Your task to perform on an android device: Clear the cart on walmart.com. Add "usb-a to usb-b" to the cart on walmart.com, then select checkout. Image 0: 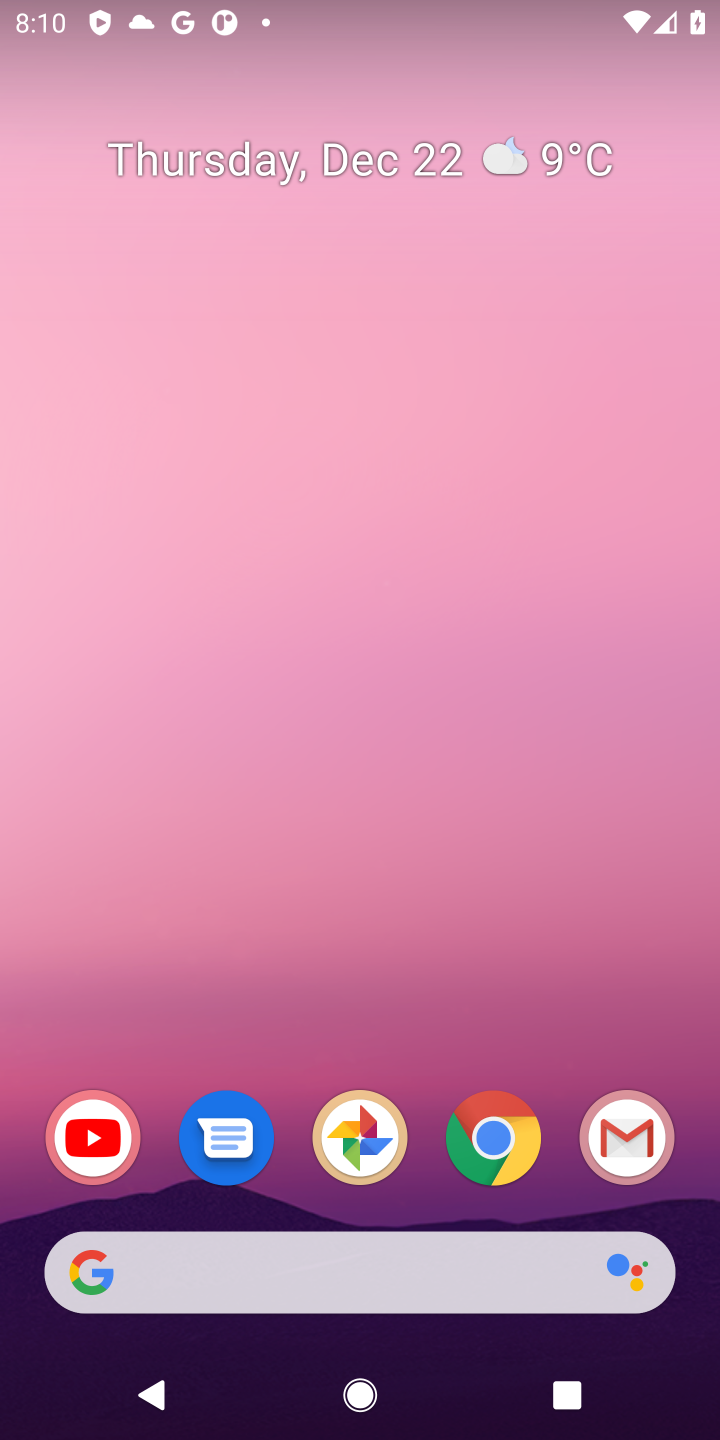
Step 0: click (508, 1150)
Your task to perform on an android device: Clear the cart on walmart.com. Add "usb-a to usb-b" to the cart on walmart.com, then select checkout. Image 1: 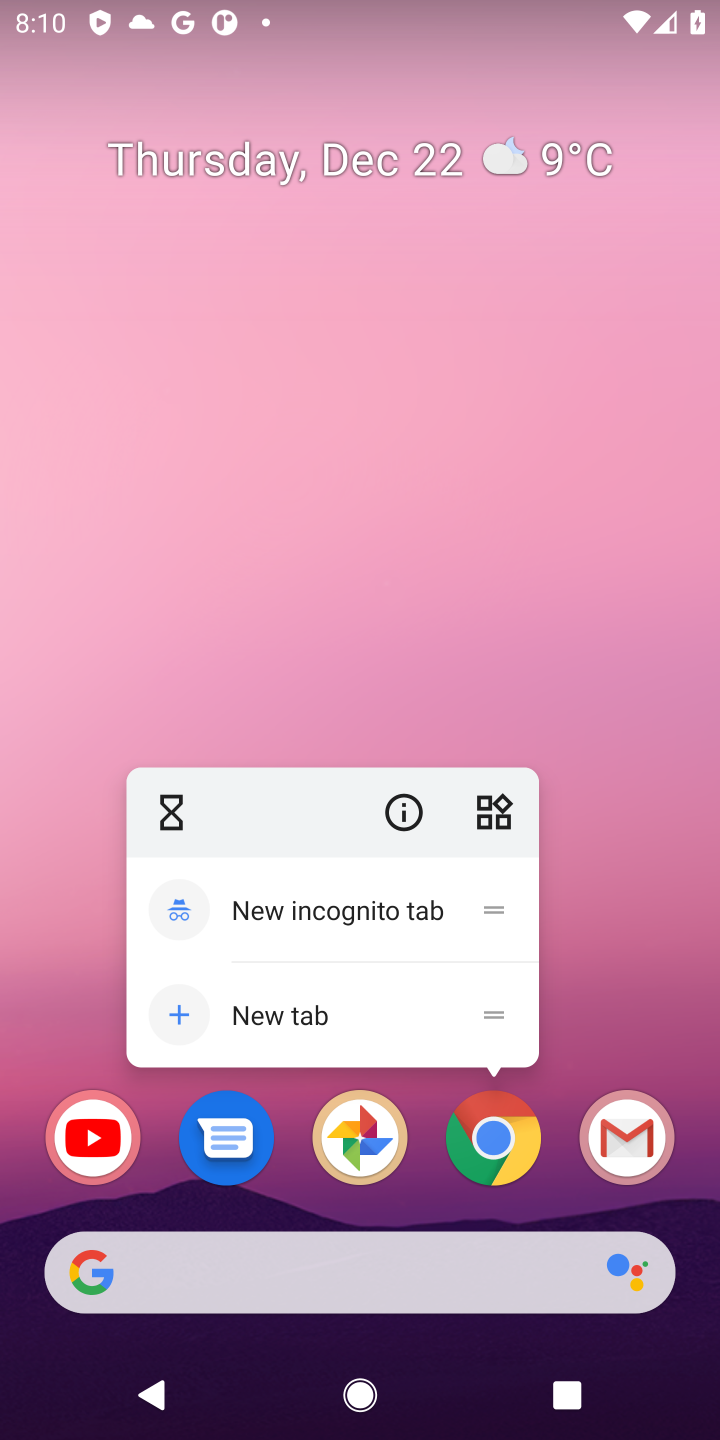
Step 1: click (489, 1159)
Your task to perform on an android device: Clear the cart on walmart.com. Add "usb-a to usb-b" to the cart on walmart.com, then select checkout. Image 2: 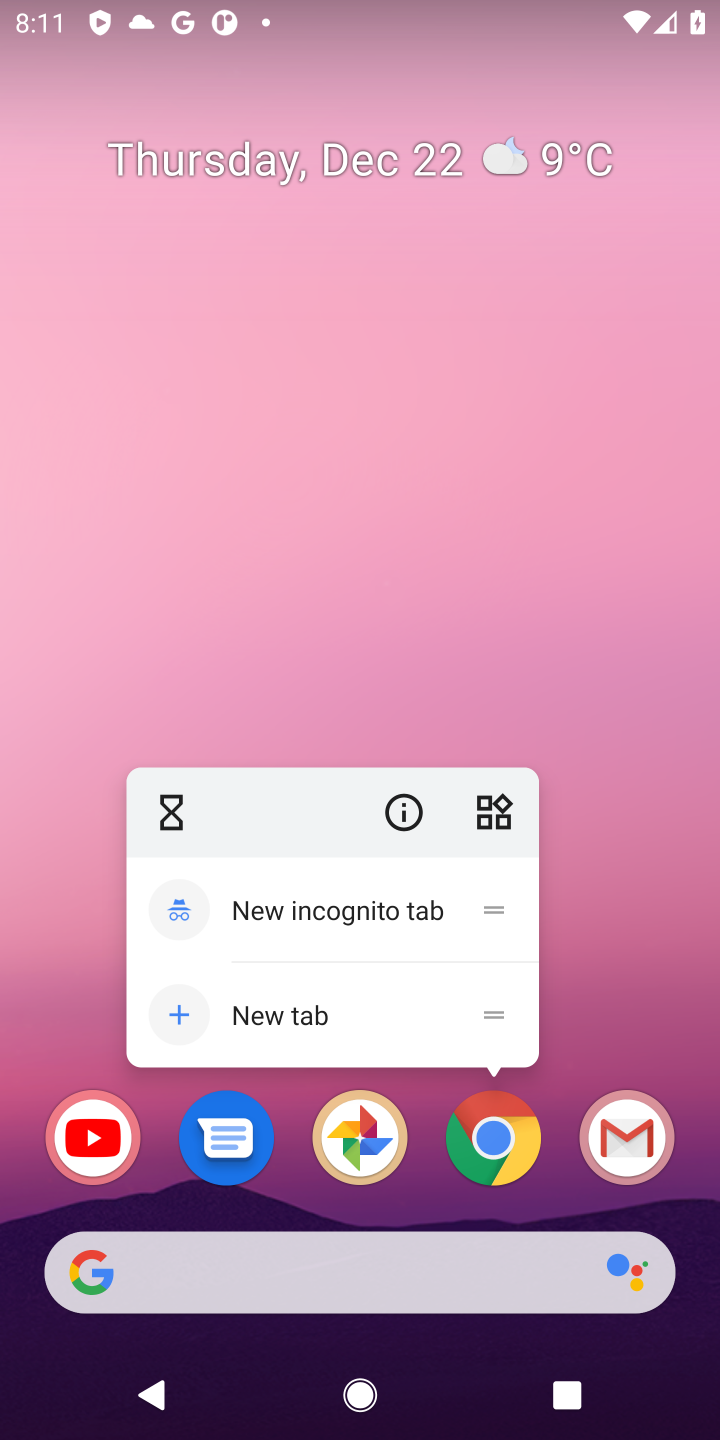
Step 2: click (489, 1159)
Your task to perform on an android device: Clear the cart on walmart.com. Add "usb-a to usb-b" to the cart on walmart.com, then select checkout. Image 3: 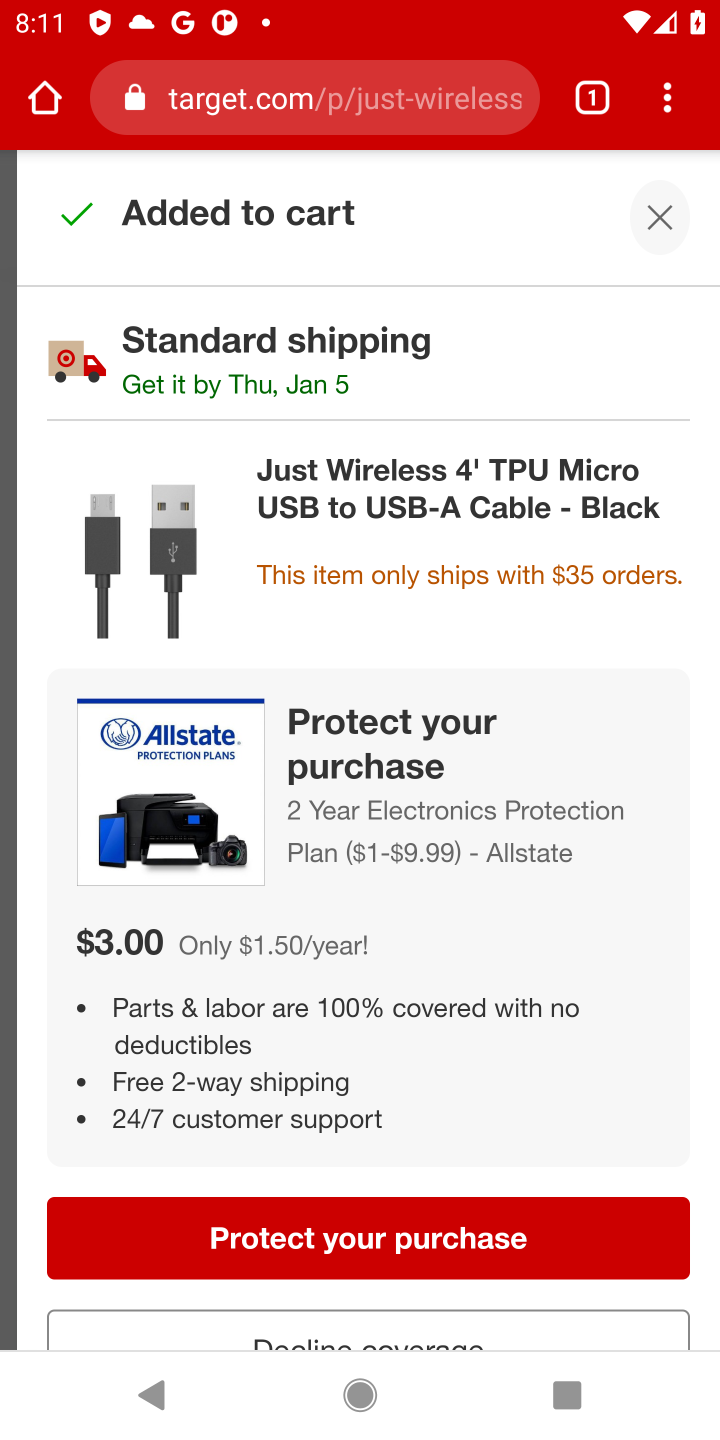
Step 3: click (353, 99)
Your task to perform on an android device: Clear the cart on walmart.com. Add "usb-a to usb-b" to the cart on walmart.com, then select checkout. Image 4: 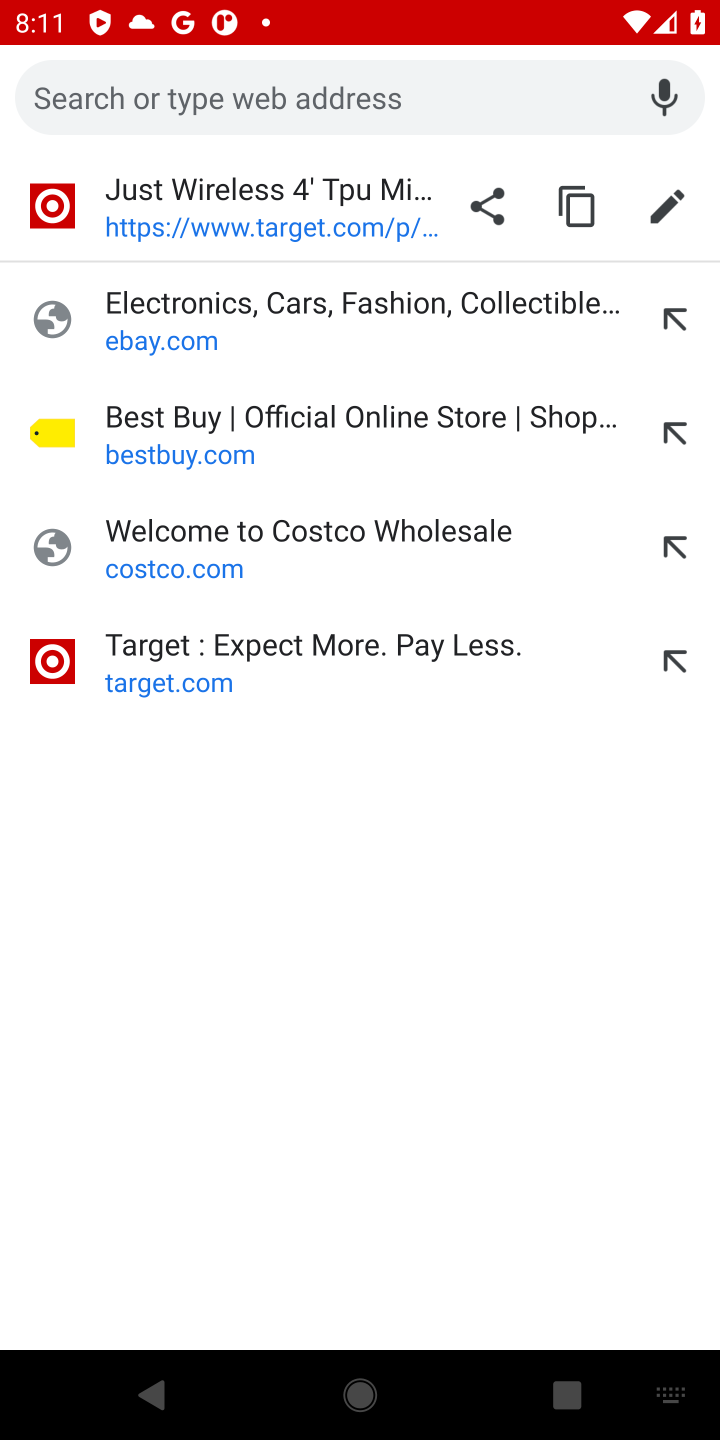
Step 4: type "walmart.com"
Your task to perform on an android device: Clear the cart on walmart.com. Add "usb-a to usb-b" to the cart on walmart.com, then select checkout. Image 5: 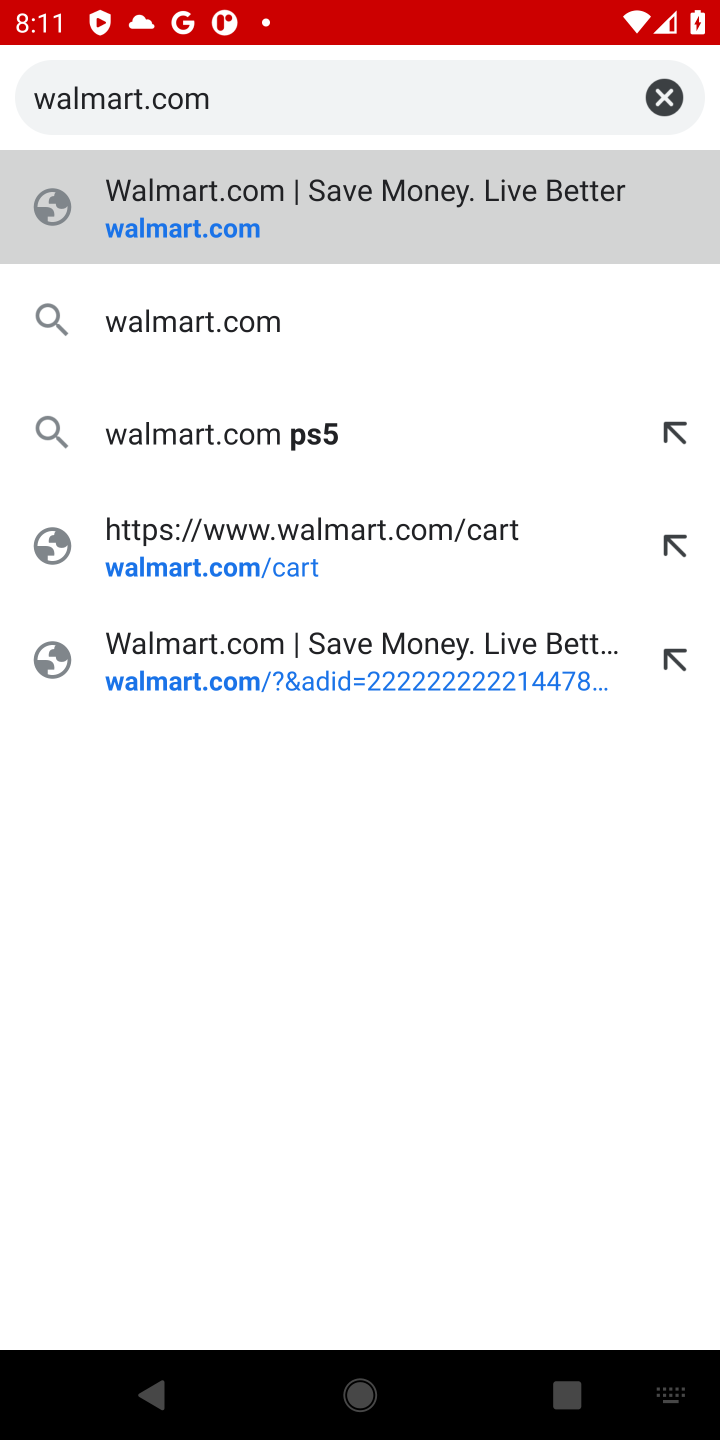
Step 5: press enter
Your task to perform on an android device: Clear the cart on walmart.com. Add "usb-a to usb-b" to the cart on walmart.com, then select checkout. Image 6: 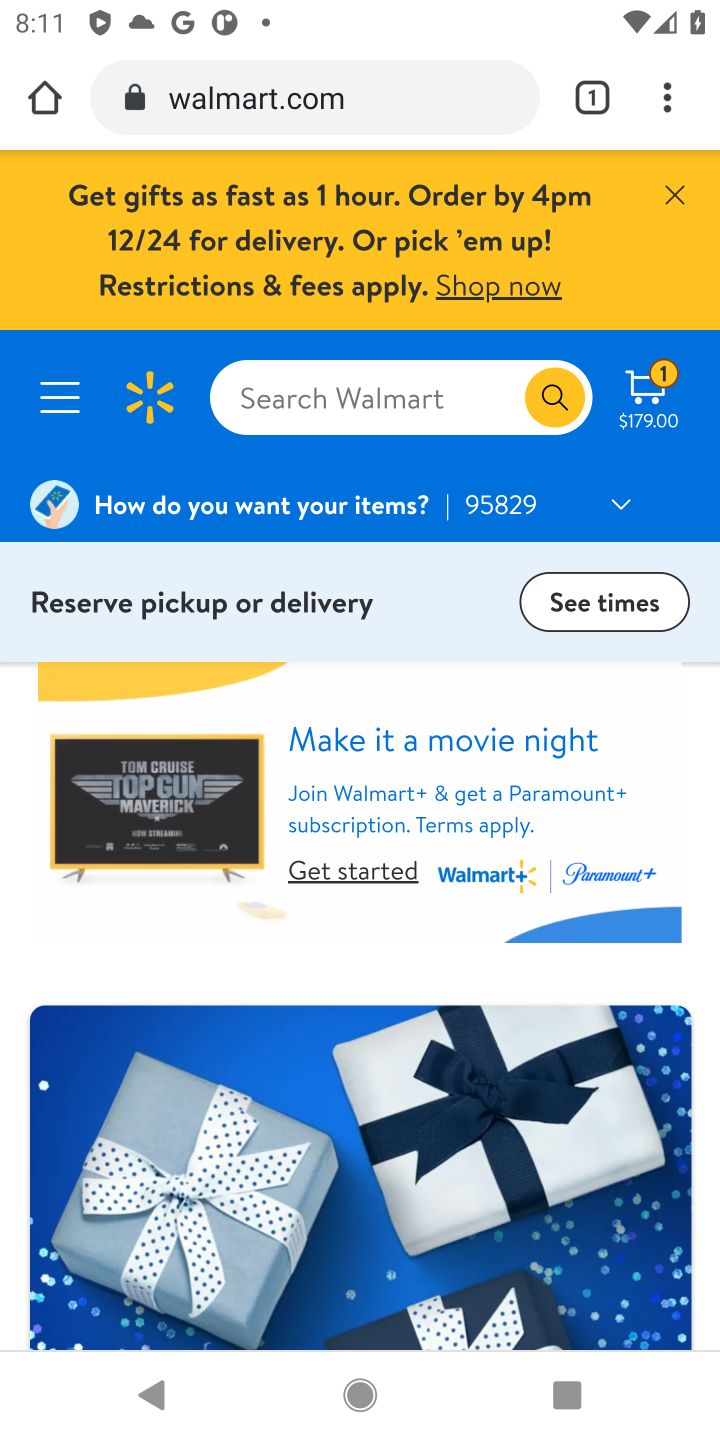
Step 6: click (642, 401)
Your task to perform on an android device: Clear the cart on walmart.com. Add "usb-a to usb-b" to the cart on walmart.com, then select checkout. Image 7: 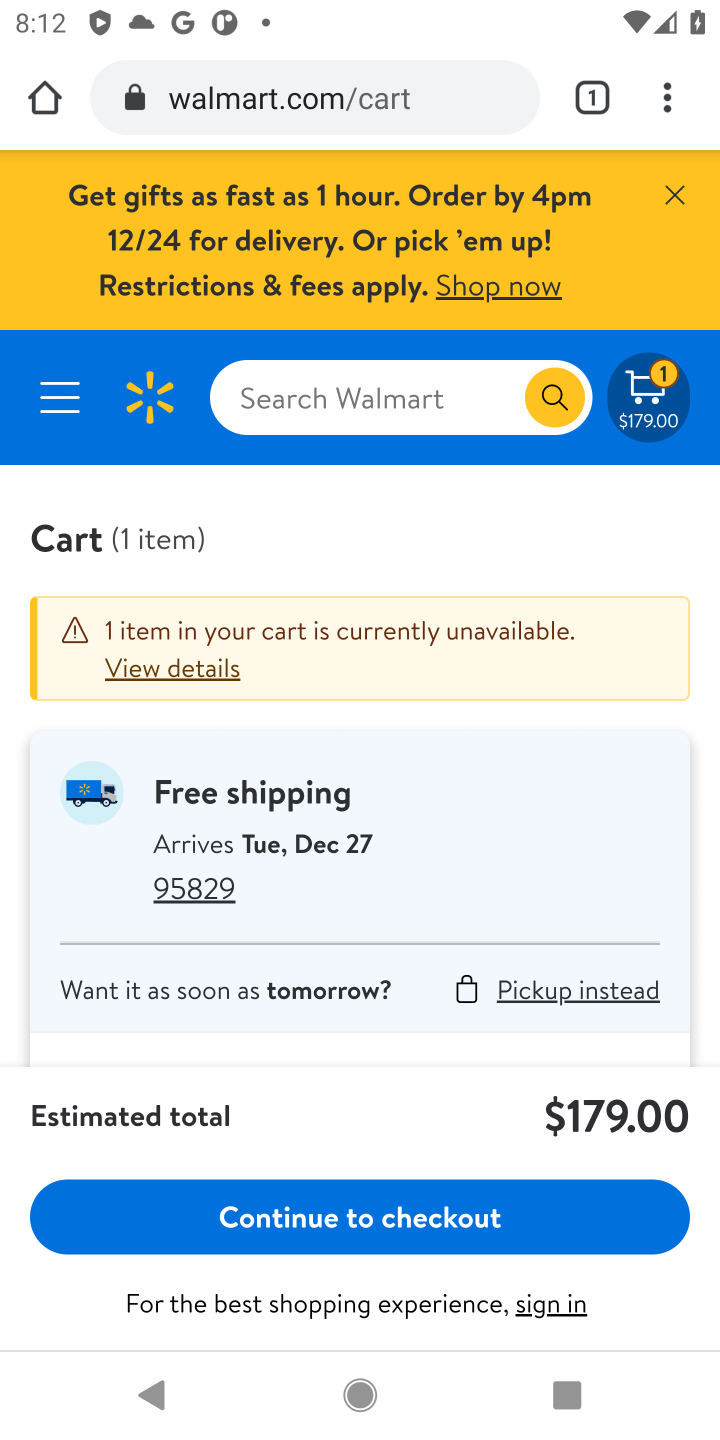
Step 7: drag from (396, 1040) to (390, 474)
Your task to perform on an android device: Clear the cart on walmart.com. Add "usb-a to usb-b" to the cart on walmart.com, then select checkout. Image 8: 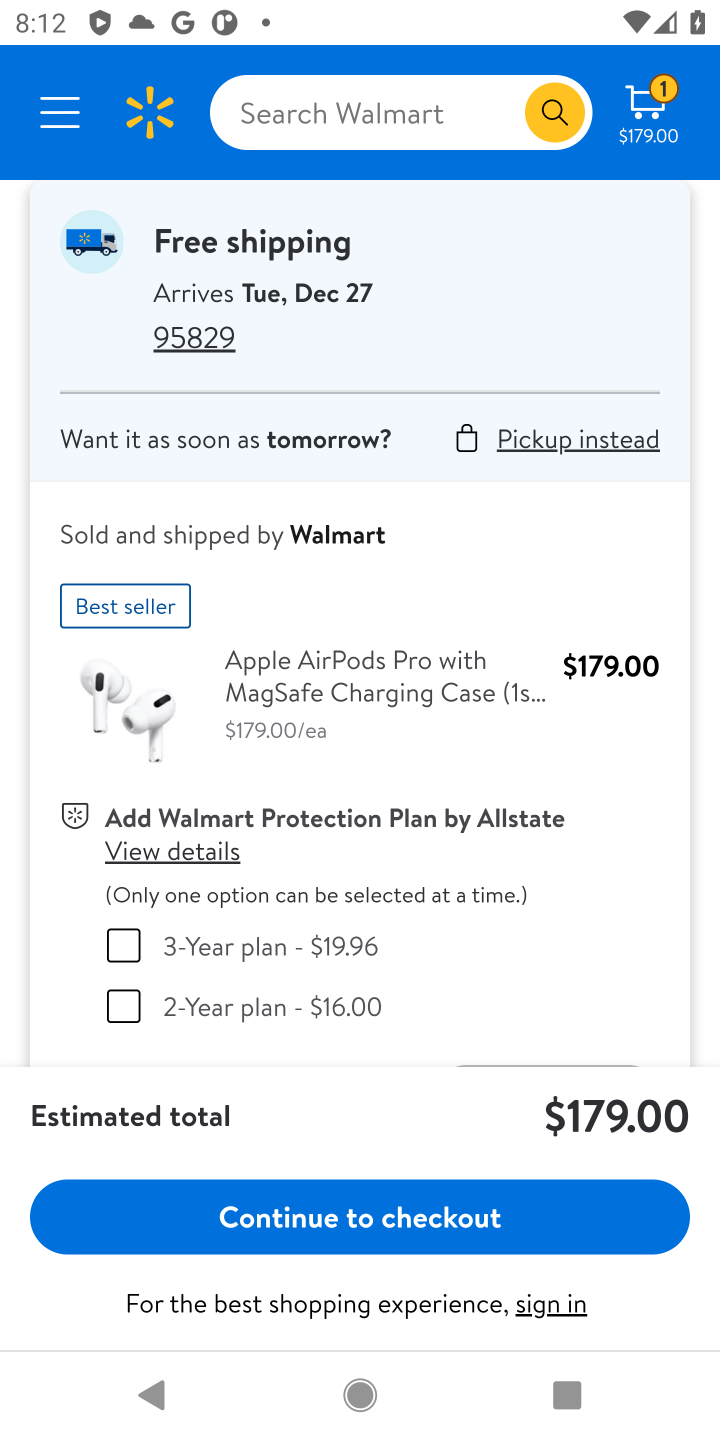
Step 8: drag from (487, 831) to (507, 273)
Your task to perform on an android device: Clear the cart on walmart.com. Add "usb-a to usb-b" to the cart on walmart.com, then select checkout. Image 9: 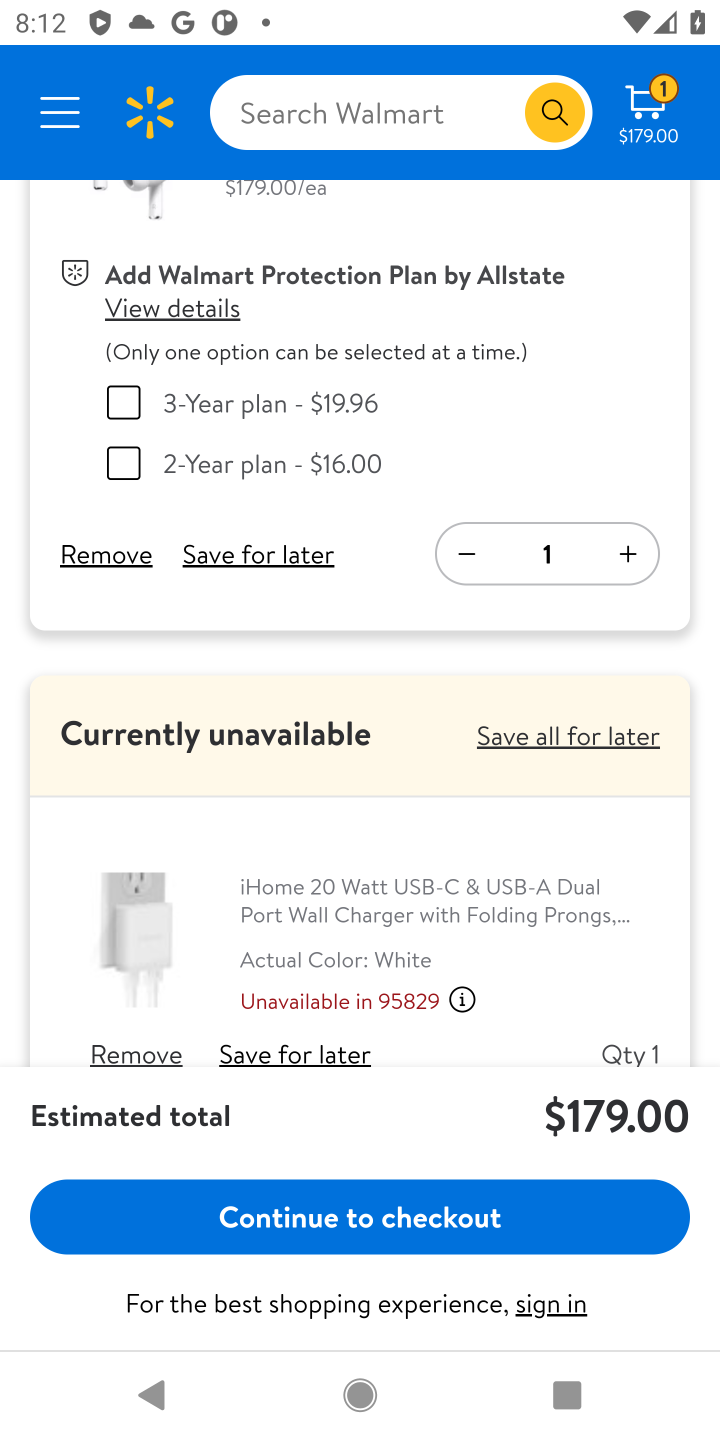
Step 9: click (122, 557)
Your task to perform on an android device: Clear the cart on walmart.com. Add "usb-a to usb-b" to the cart on walmart.com, then select checkout. Image 10: 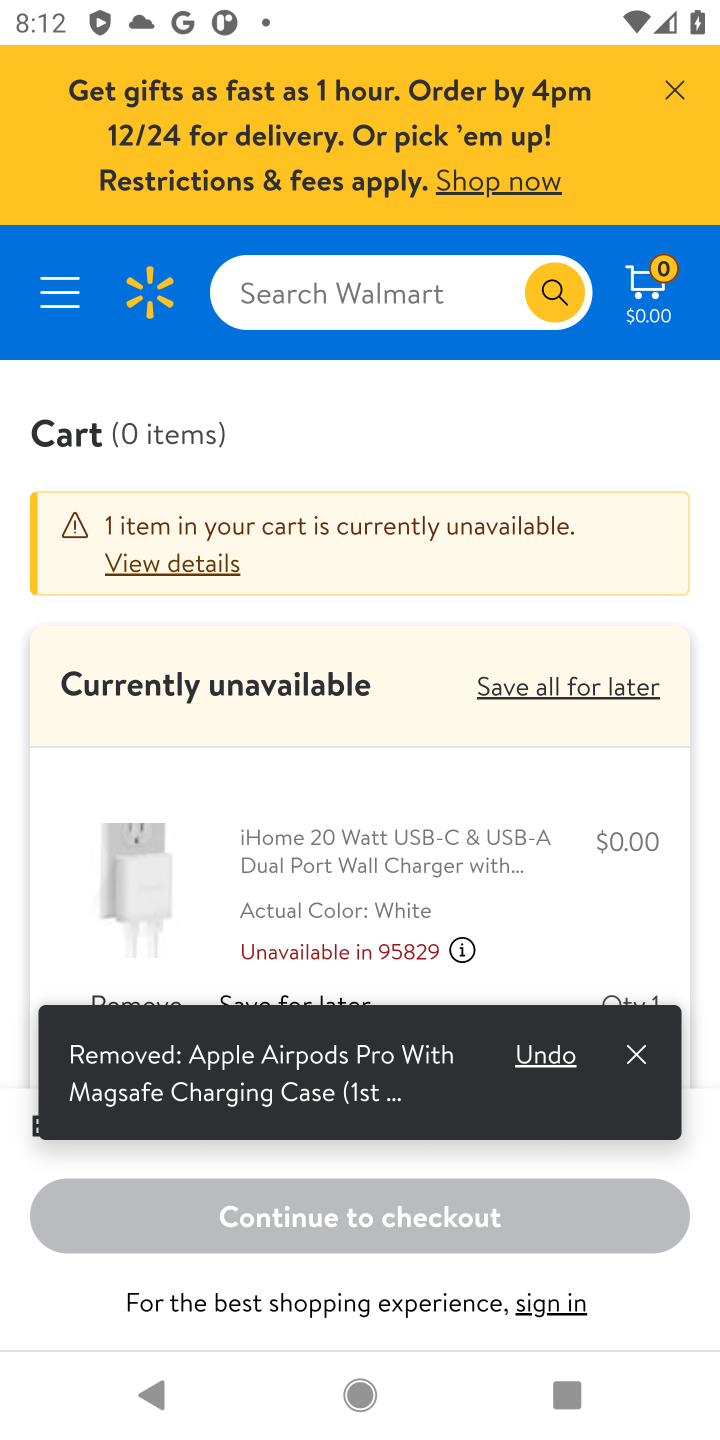
Step 10: drag from (238, 802) to (281, 453)
Your task to perform on an android device: Clear the cart on walmart.com. Add "usb-a to usb-b" to the cart on walmart.com, then select checkout. Image 11: 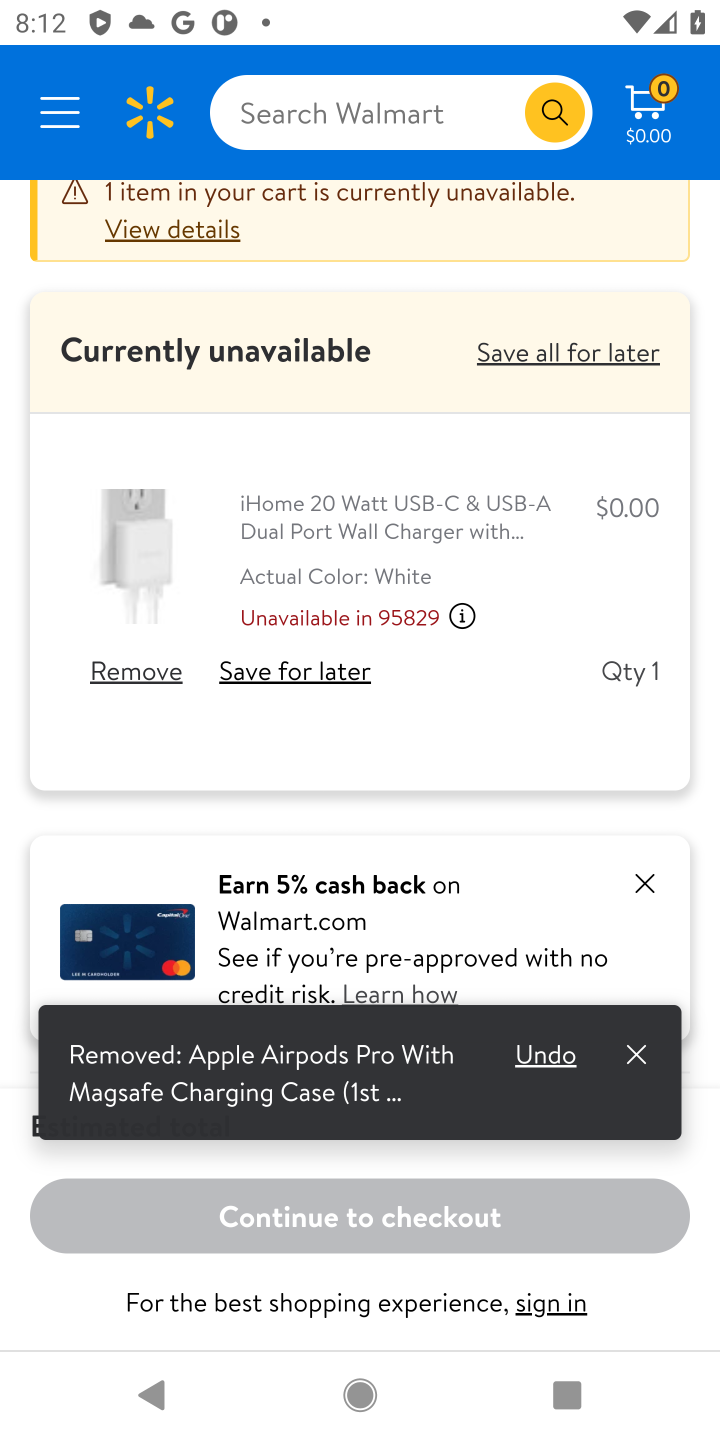
Step 11: click (156, 676)
Your task to perform on an android device: Clear the cart on walmart.com. Add "usb-a to usb-b" to the cart on walmart.com, then select checkout. Image 12: 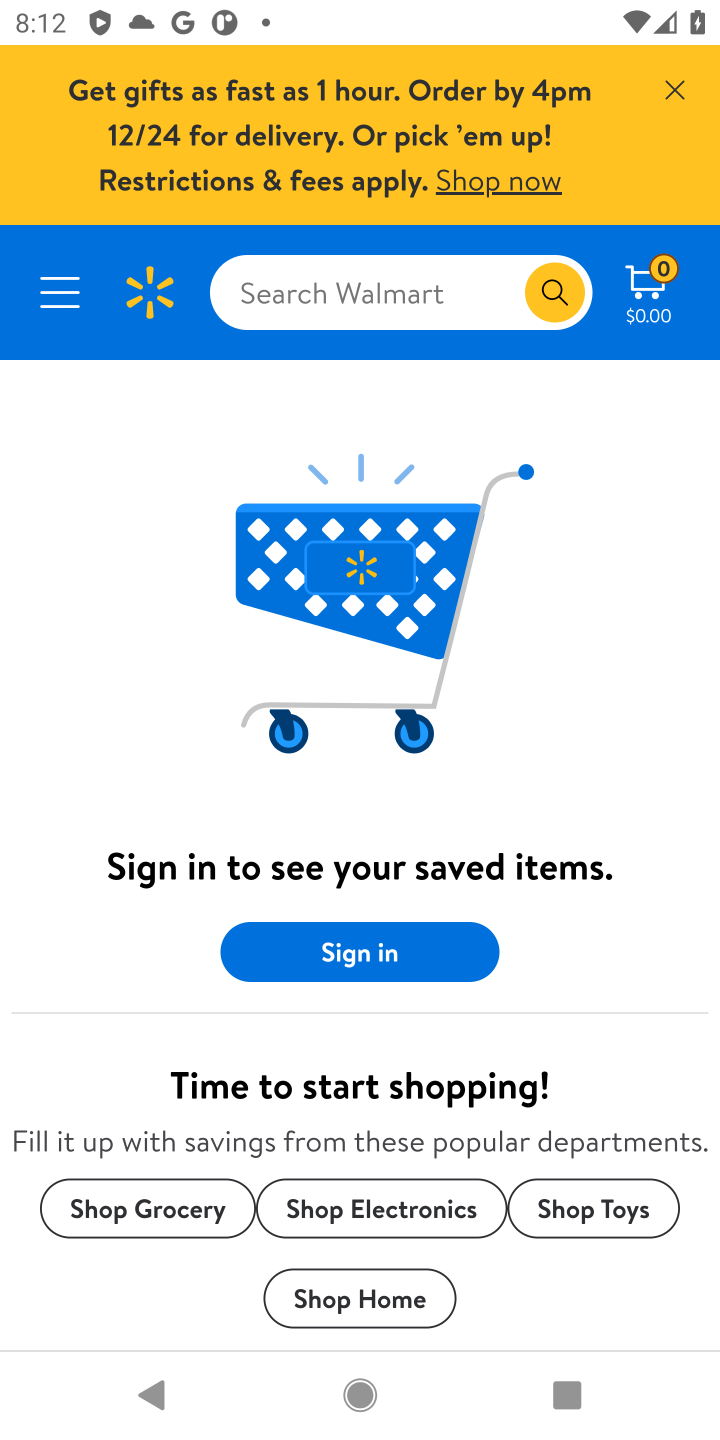
Step 12: click (677, 89)
Your task to perform on an android device: Clear the cart on walmart.com. Add "usb-a to usb-b" to the cart on walmart.com, then select checkout. Image 13: 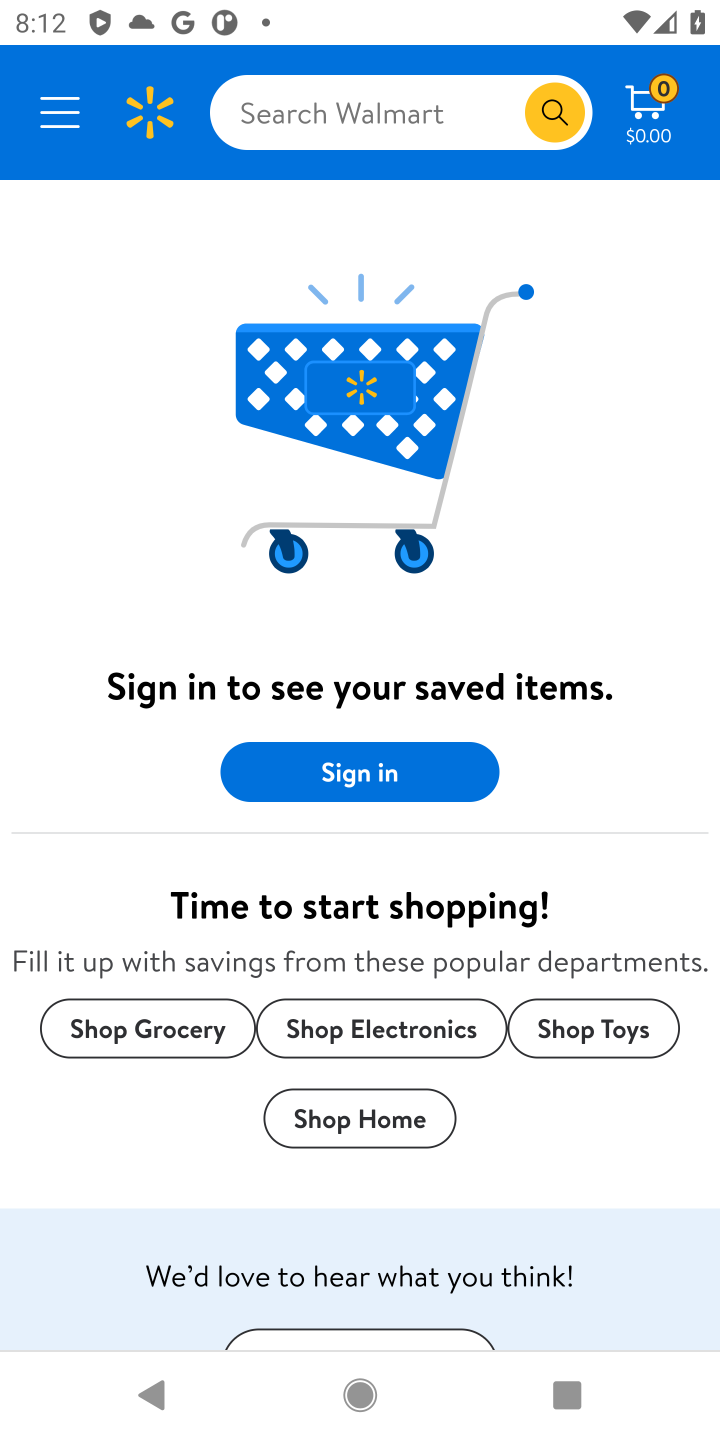
Step 13: click (351, 96)
Your task to perform on an android device: Clear the cart on walmart.com. Add "usb-a to usb-b" to the cart on walmart.com, then select checkout. Image 14: 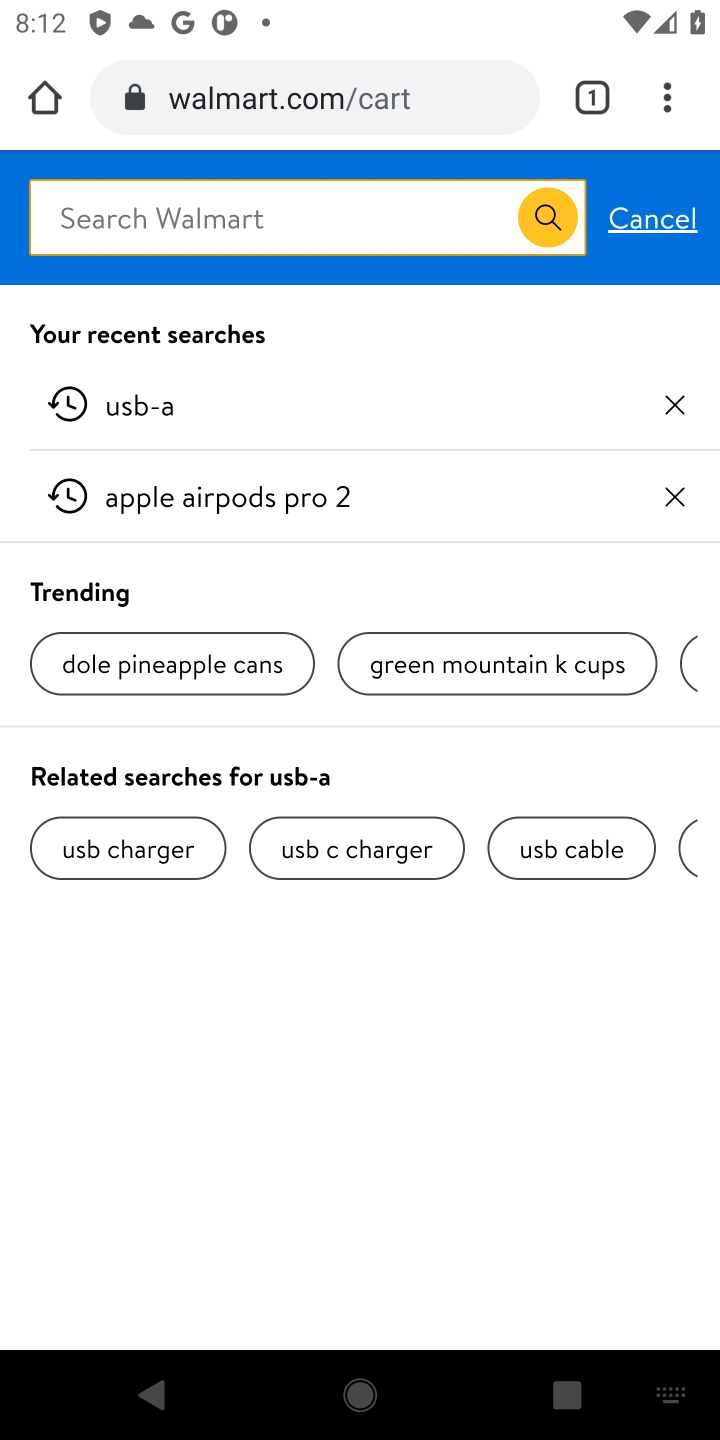
Step 14: type "usb-a to usb-b"
Your task to perform on an android device: Clear the cart on walmart.com. Add "usb-a to usb-b" to the cart on walmart.com, then select checkout. Image 15: 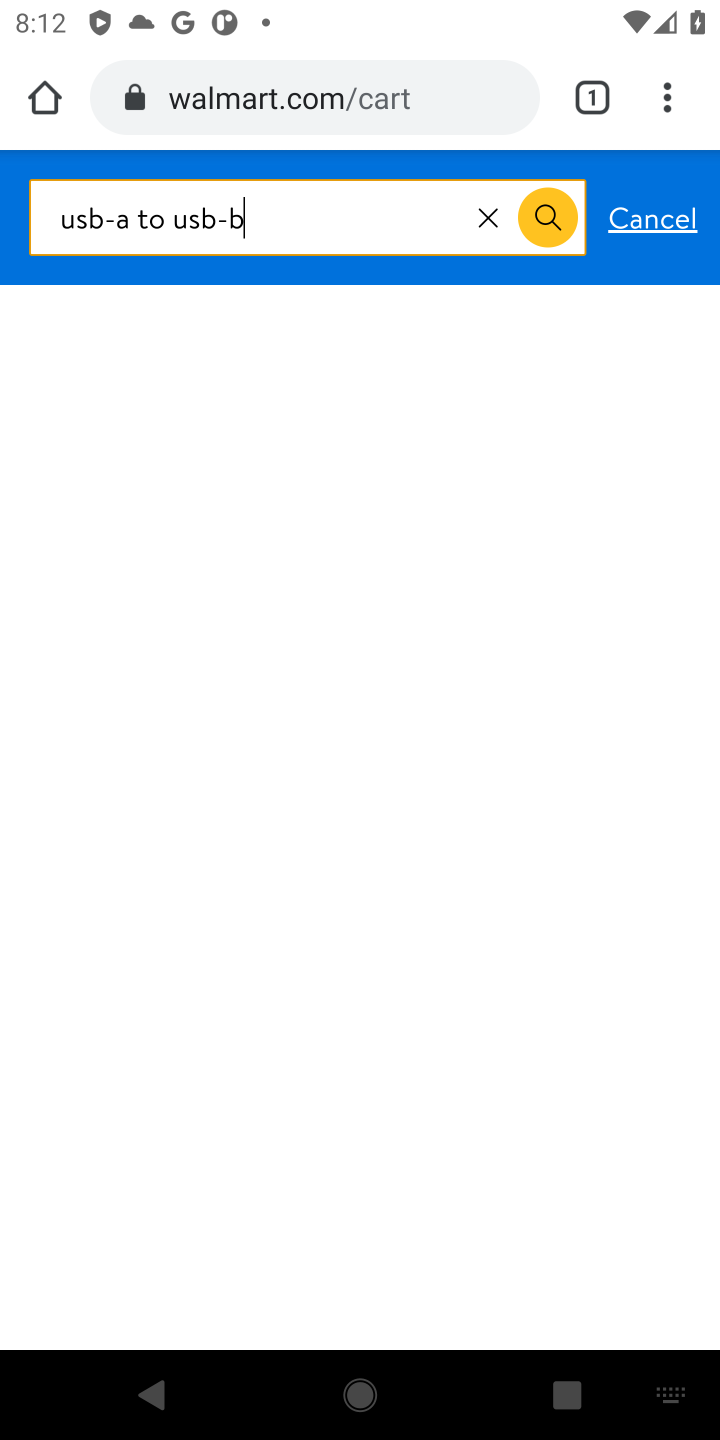
Step 15: press enter
Your task to perform on an android device: Clear the cart on walmart.com. Add "usb-a to usb-b" to the cart on walmart.com, then select checkout. Image 16: 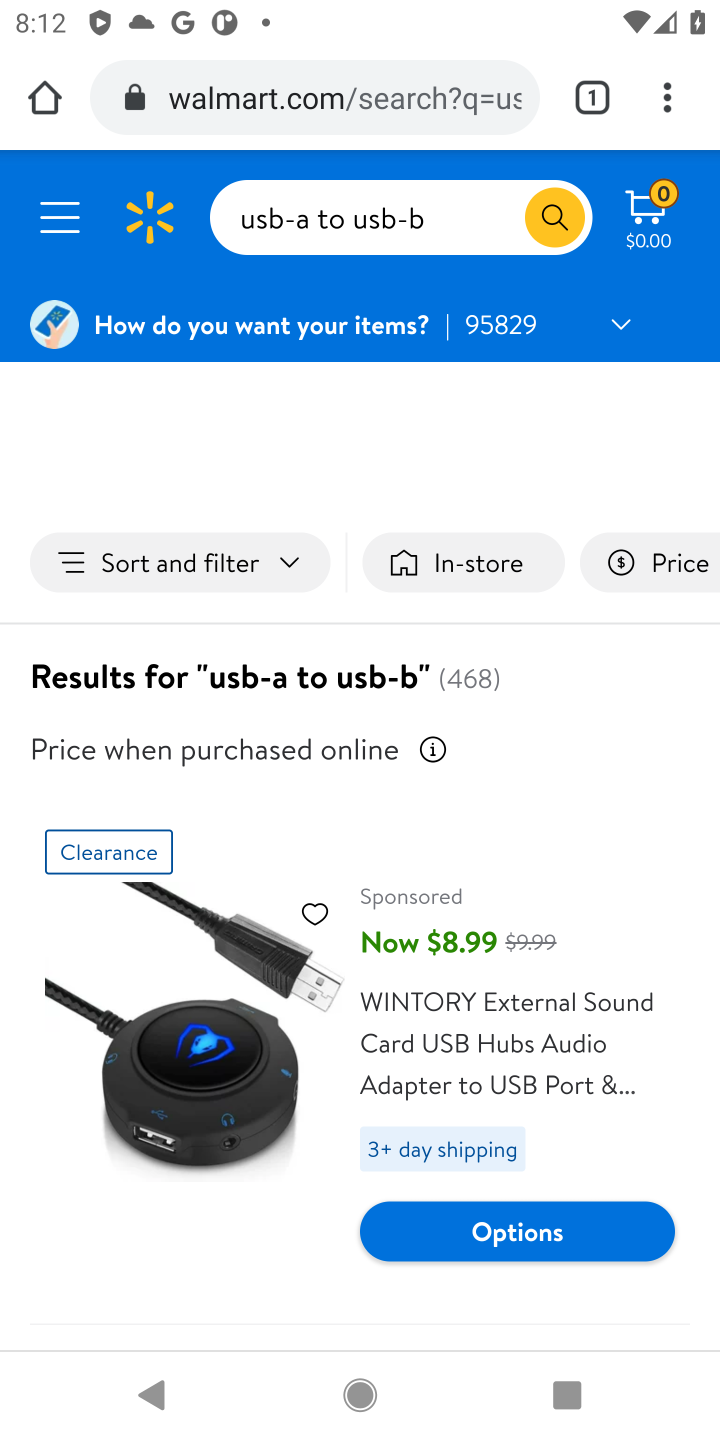
Step 16: drag from (513, 1089) to (550, 506)
Your task to perform on an android device: Clear the cart on walmart.com. Add "usb-a to usb-b" to the cart on walmart.com, then select checkout. Image 17: 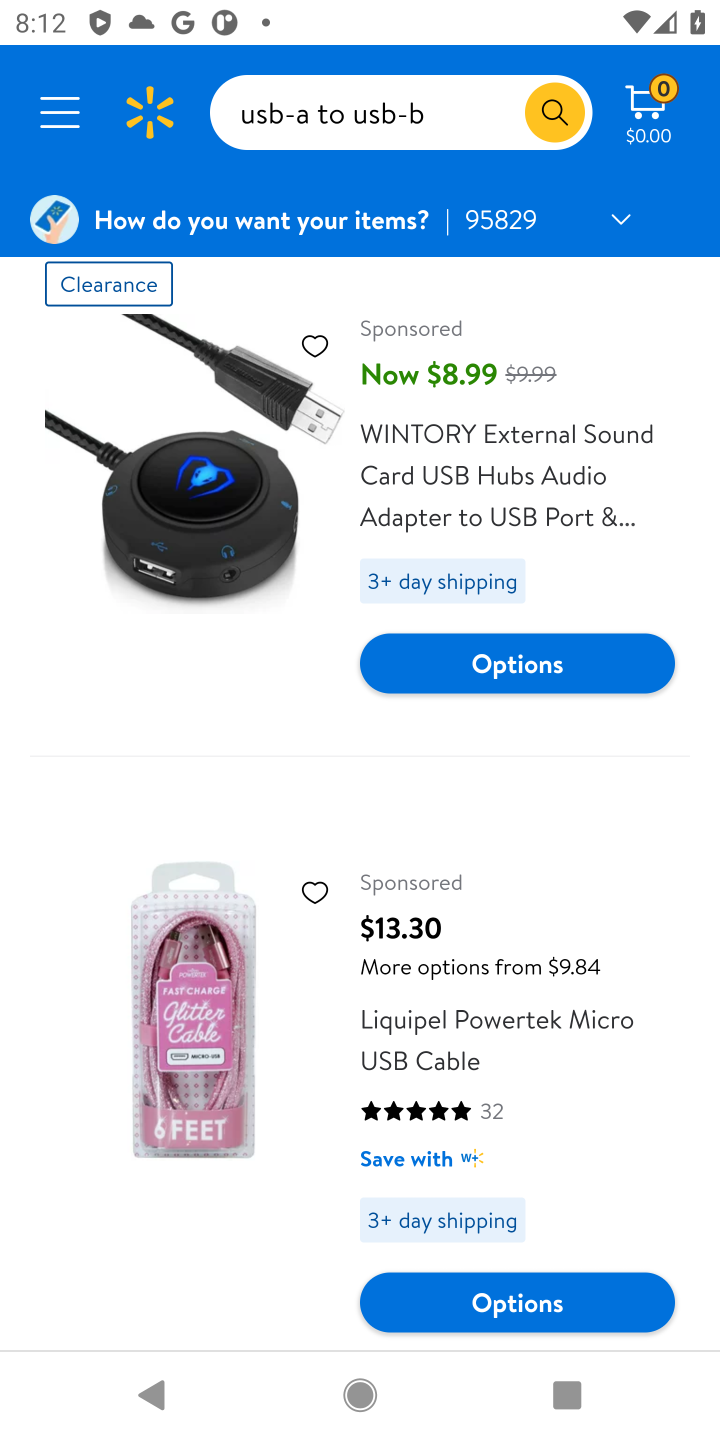
Step 17: drag from (503, 800) to (517, 476)
Your task to perform on an android device: Clear the cart on walmart.com. Add "usb-a to usb-b" to the cart on walmart.com, then select checkout. Image 18: 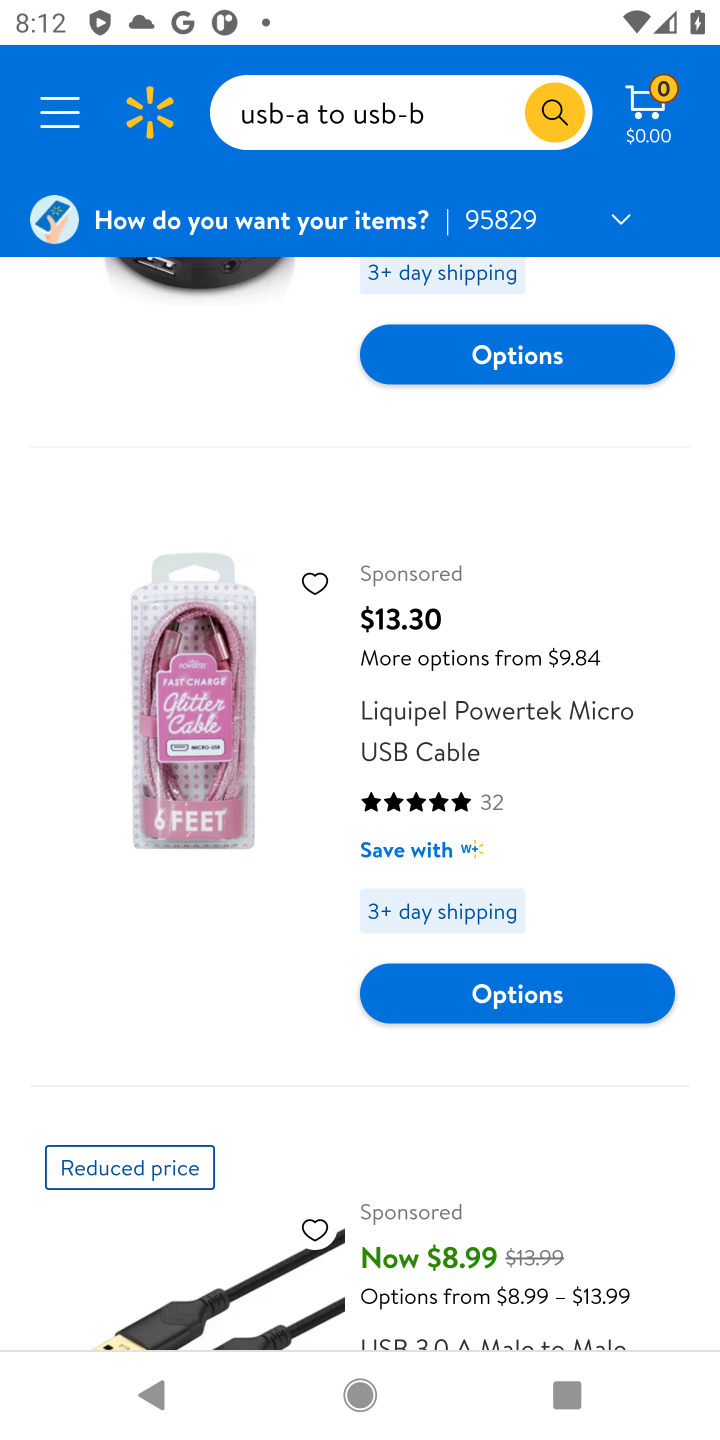
Step 18: drag from (549, 1250) to (565, 647)
Your task to perform on an android device: Clear the cart on walmart.com. Add "usb-a to usb-b" to the cart on walmart.com, then select checkout. Image 19: 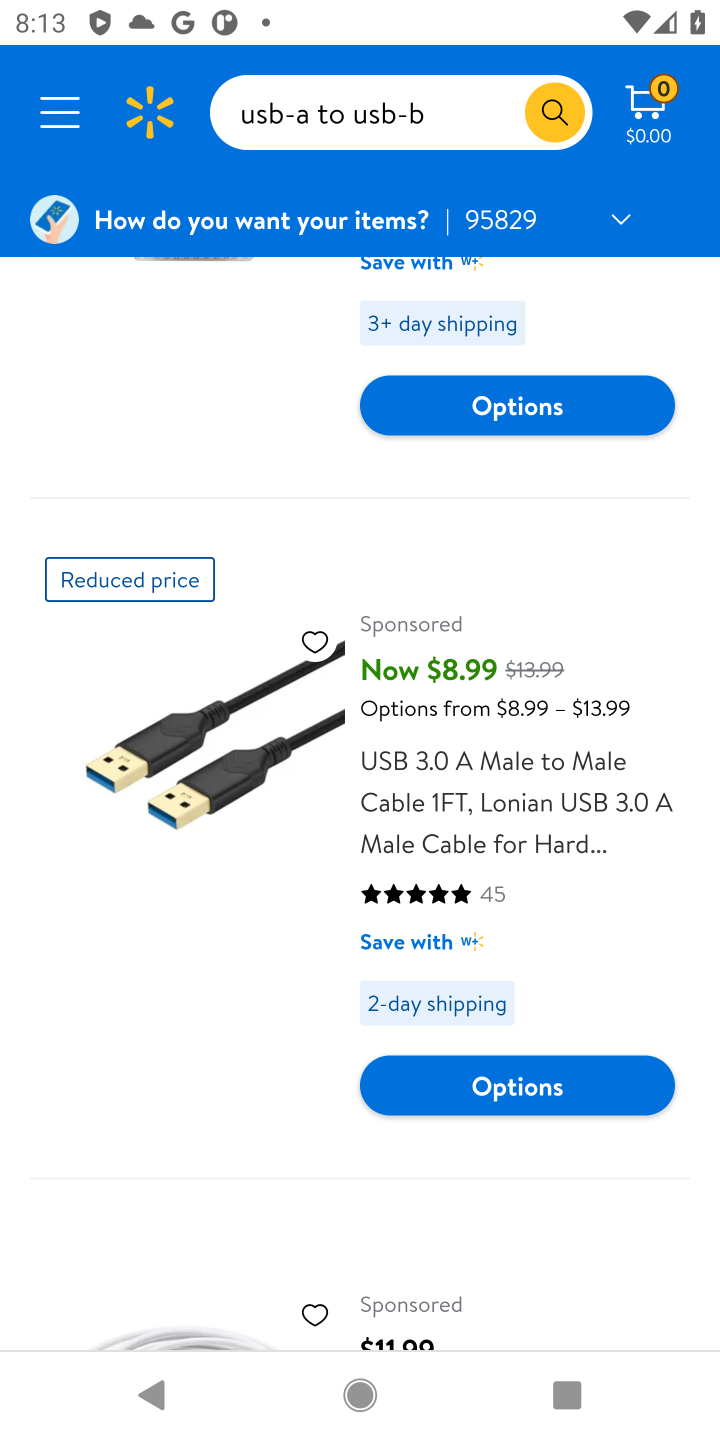
Step 19: drag from (614, 847) to (619, 336)
Your task to perform on an android device: Clear the cart on walmart.com. Add "usb-a to usb-b" to the cart on walmart.com, then select checkout. Image 20: 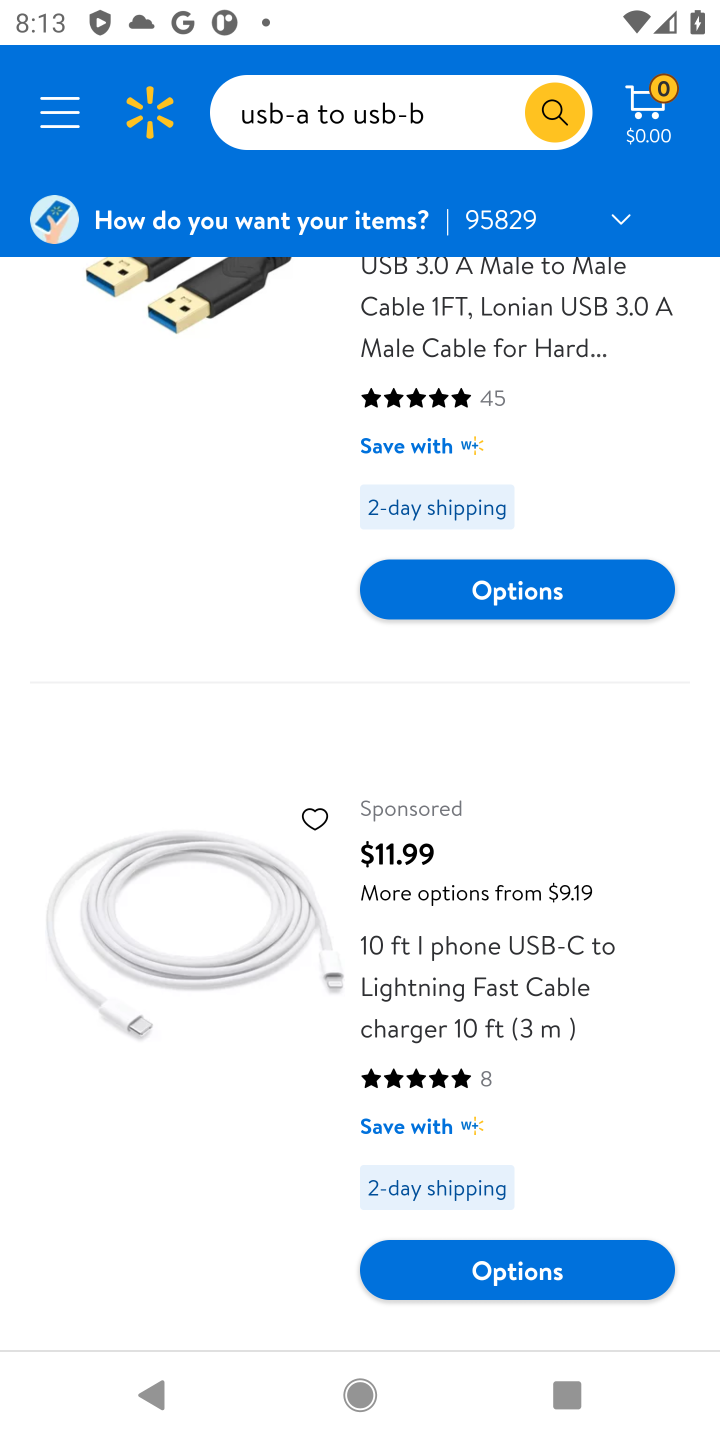
Step 20: drag from (583, 1062) to (540, 495)
Your task to perform on an android device: Clear the cart on walmart.com. Add "usb-a to usb-b" to the cart on walmart.com, then select checkout. Image 21: 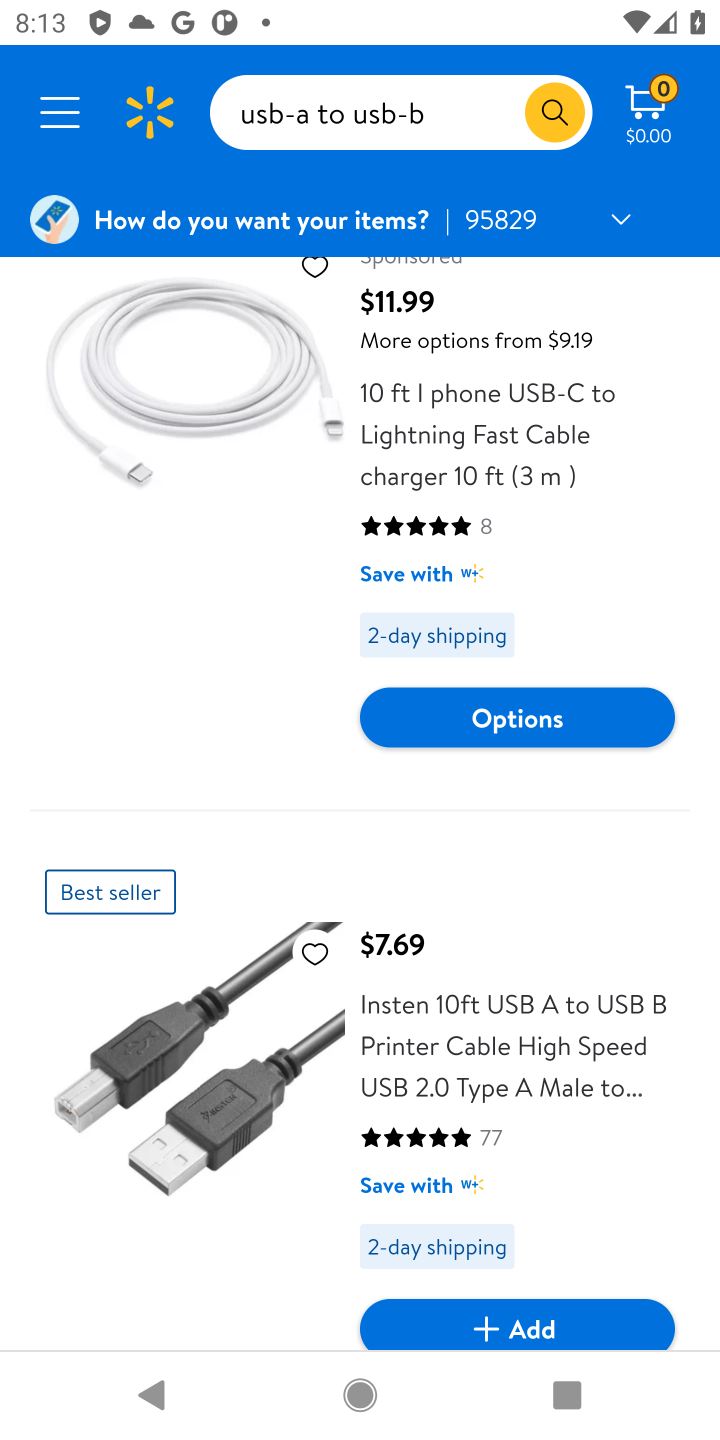
Step 21: click (183, 1027)
Your task to perform on an android device: Clear the cart on walmart.com. Add "usb-a to usb-b" to the cart on walmart.com, then select checkout. Image 22: 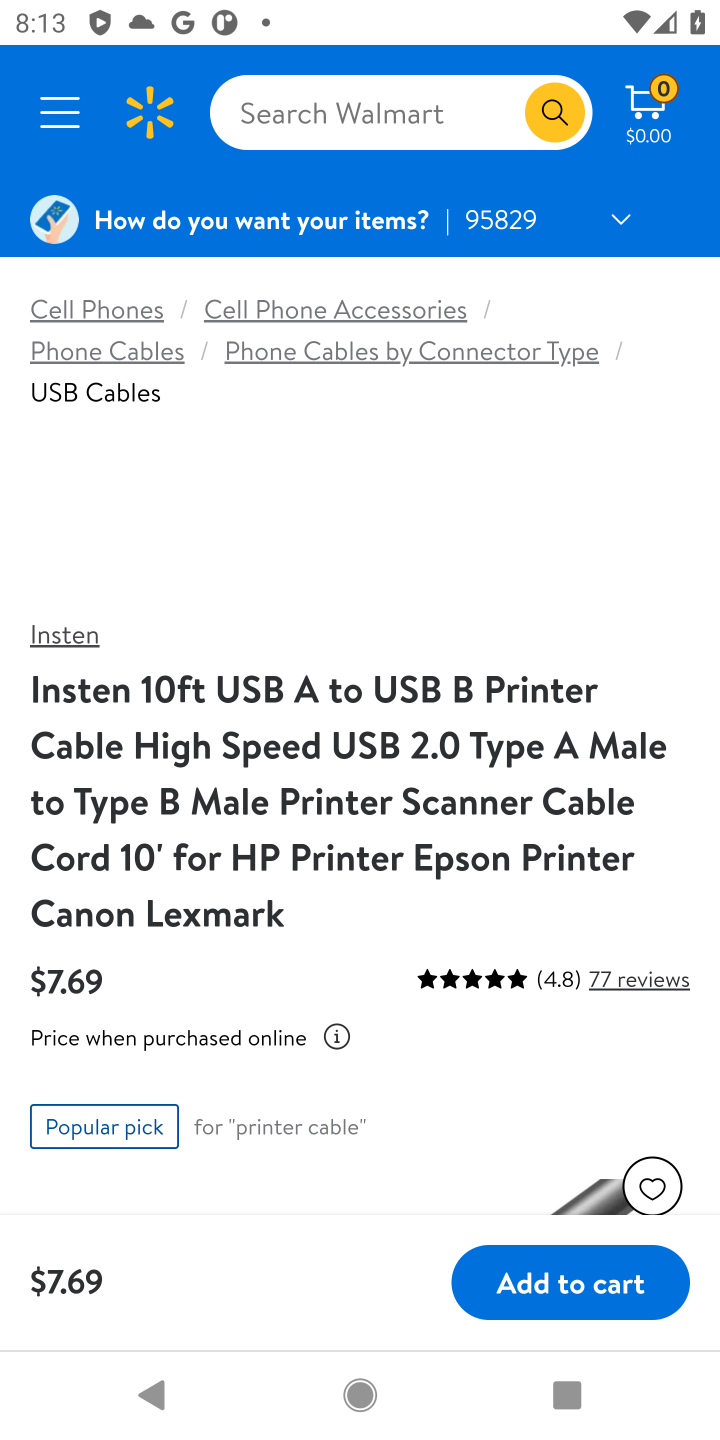
Step 22: click (544, 1300)
Your task to perform on an android device: Clear the cart on walmart.com. Add "usb-a to usb-b" to the cart on walmart.com, then select checkout. Image 23: 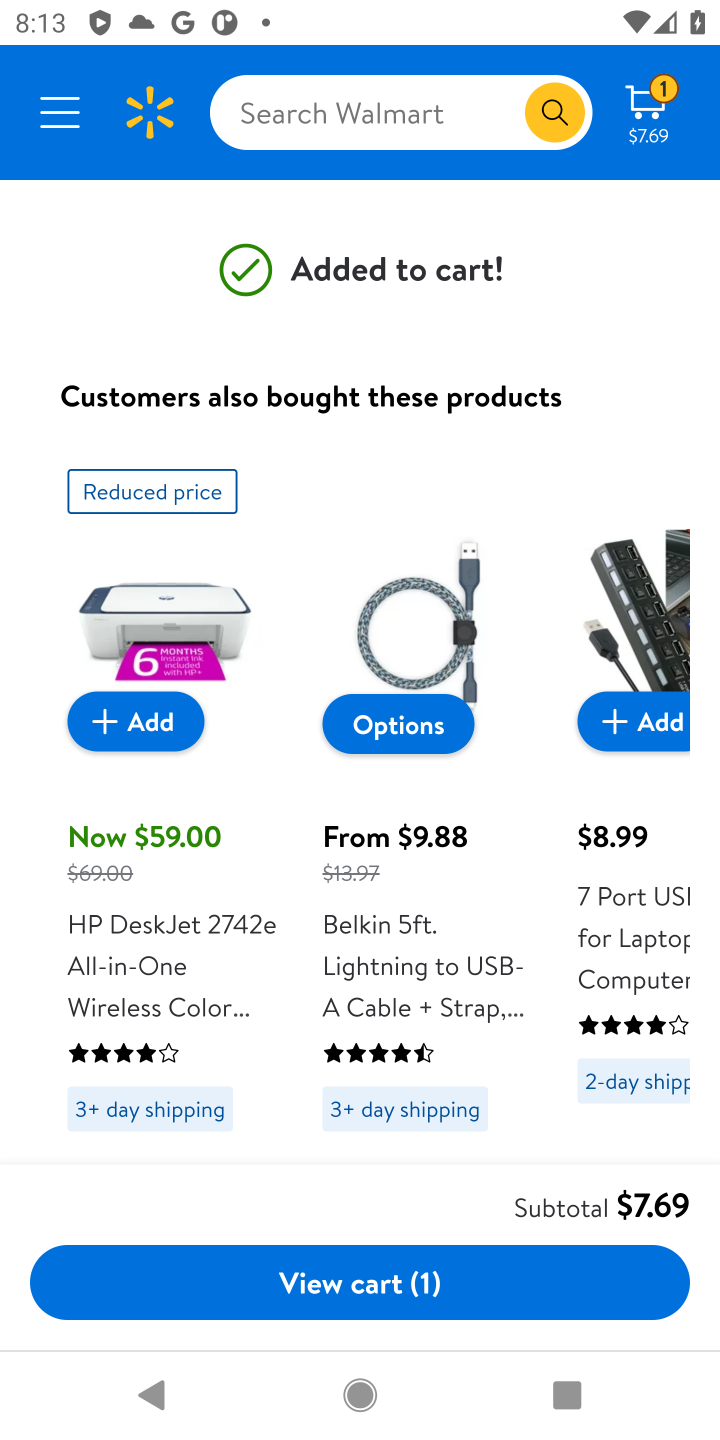
Step 23: click (648, 119)
Your task to perform on an android device: Clear the cart on walmart.com. Add "usb-a to usb-b" to the cart on walmart.com, then select checkout. Image 24: 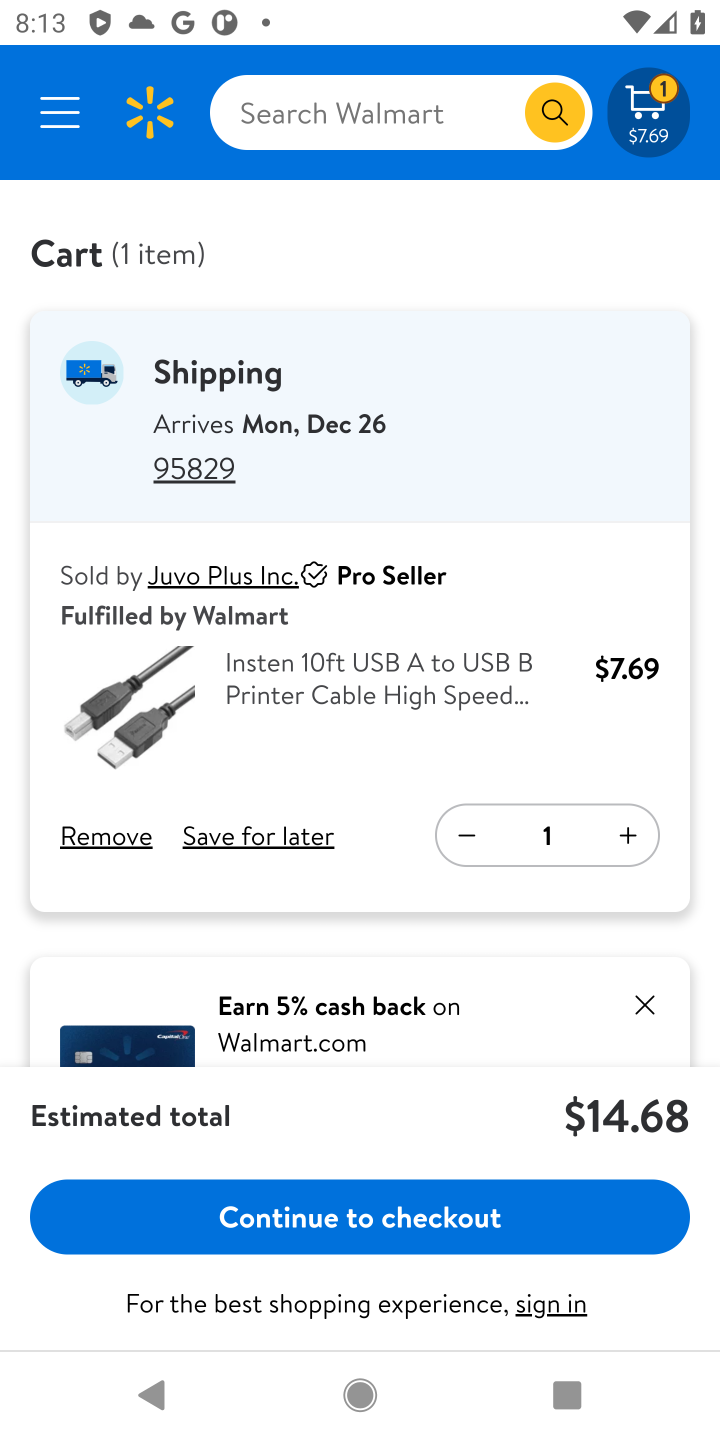
Step 24: click (411, 1227)
Your task to perform on an android device: Clear the cart on walmart.com. Add "usb-a to usb-b" to the cart on walmart.com, then select checkout. Image 25: 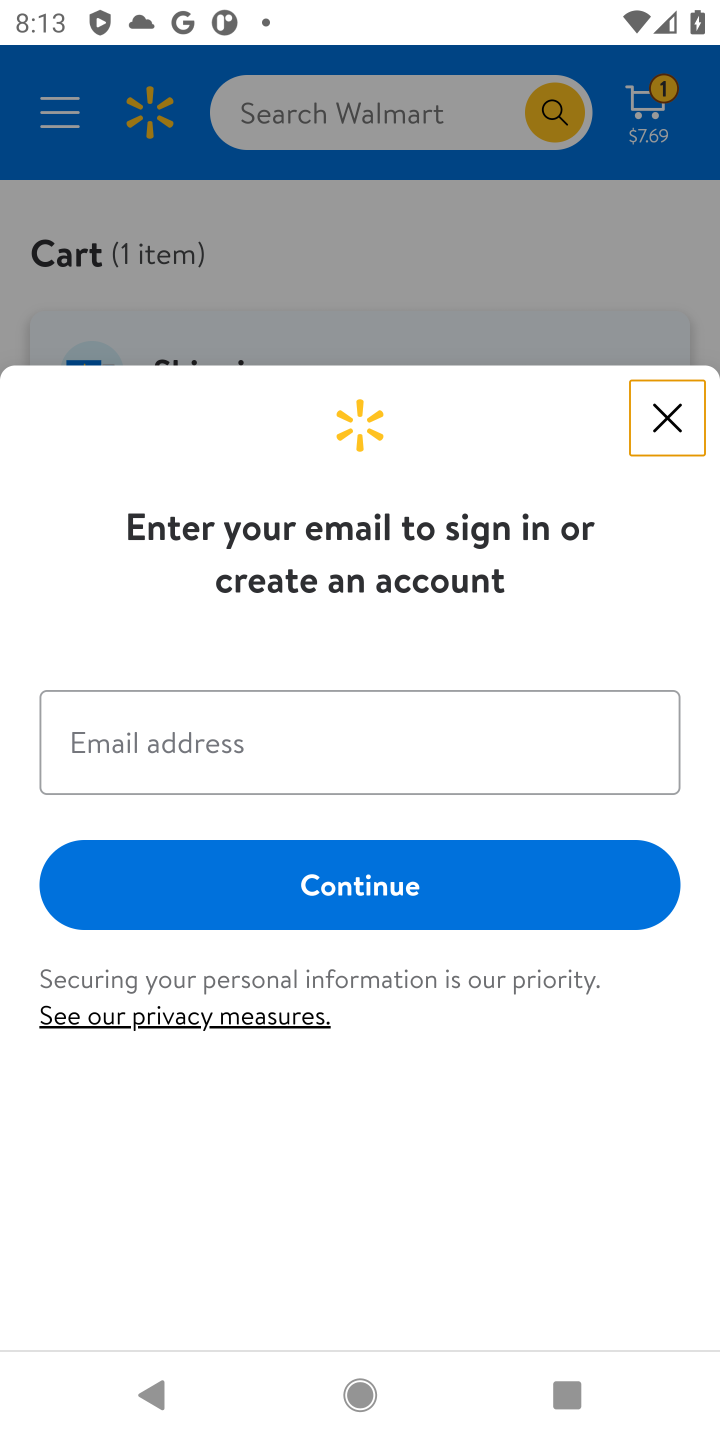
Step 25: task complete